Your task to perform on an android device: change your default location settings in chrome Image 0: 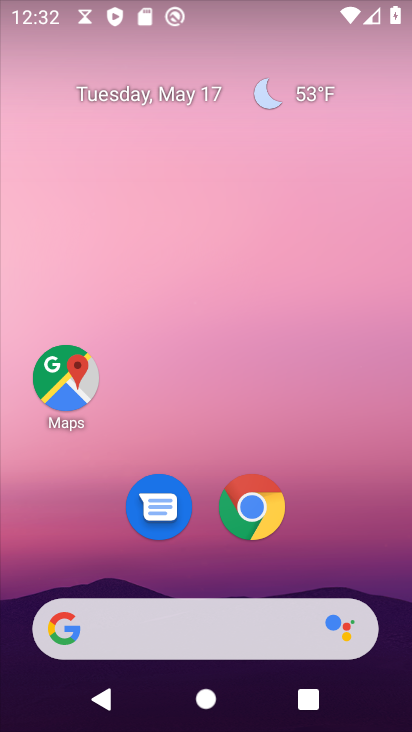
Step 0: click (258, 509)
Your task to perform on an android device: change your default location settings in chrome Image 1: 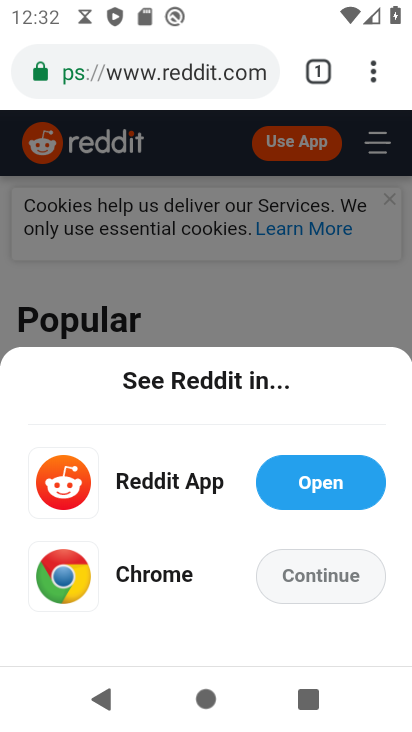
Step 1: click (366, 71)
Your task to perform on an android device: change your default location settings in chrome Image 2: 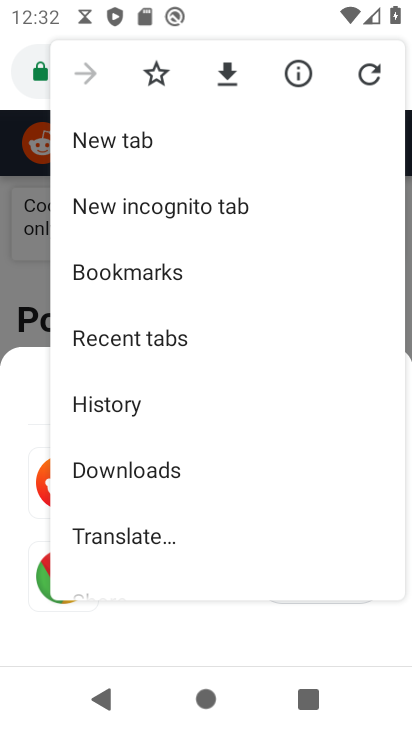
Step 2: drag from (221, 529) to (217, 335)
Your task to perform on an android device: change your default location settings in chrome Image 3: 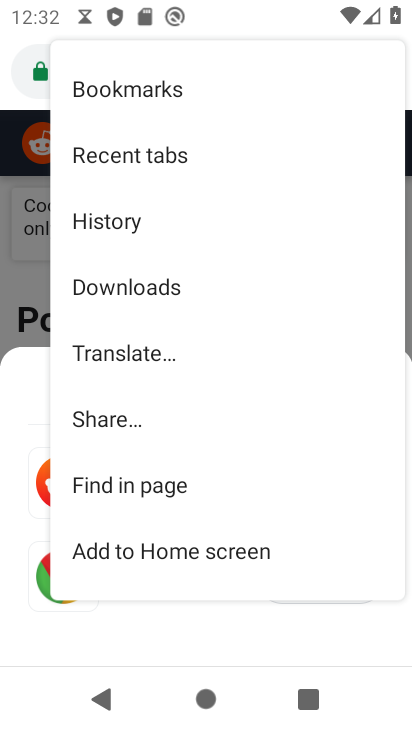
Step 3: drag from (188, 522) to (188, 325)
Your task to perform on an android device: change your default location settings in chrome Image 4: 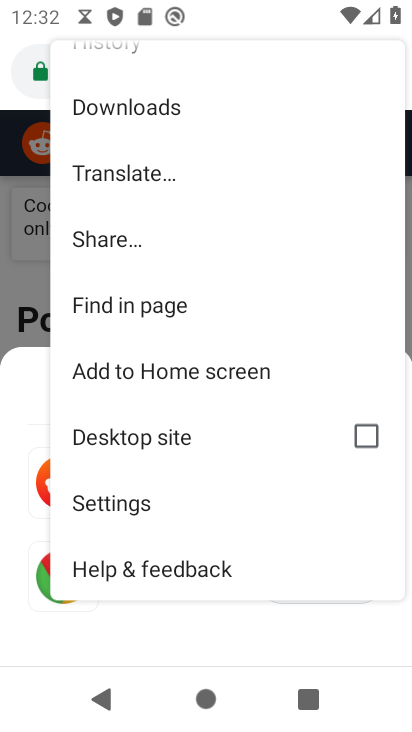
Step 4: click (186, 501)
Your task to perform on an android device: change your default location settings in chrome Image 5: 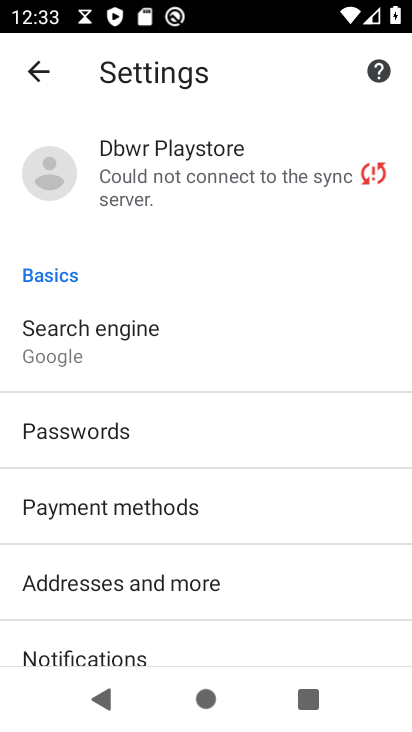
Step 5: drag from (187, 612) to (210, 395)
Your task to perform on an android device: change your default location settings in chrome Image 6: 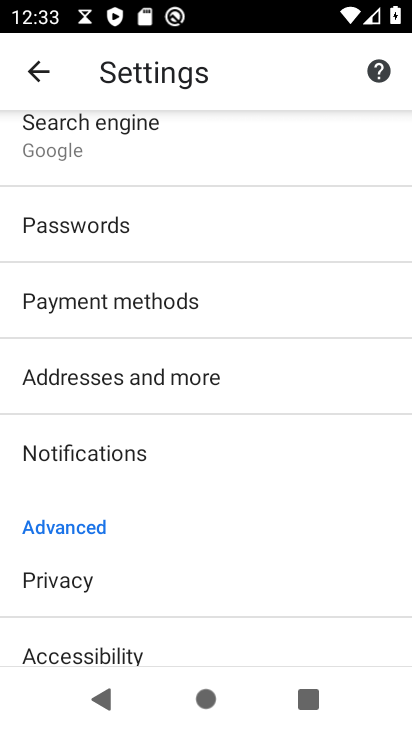
Step 6: drag from (164, 640) to (169, 480)
Your task to perform on an android device: change your default location settings in chrome Image 7: 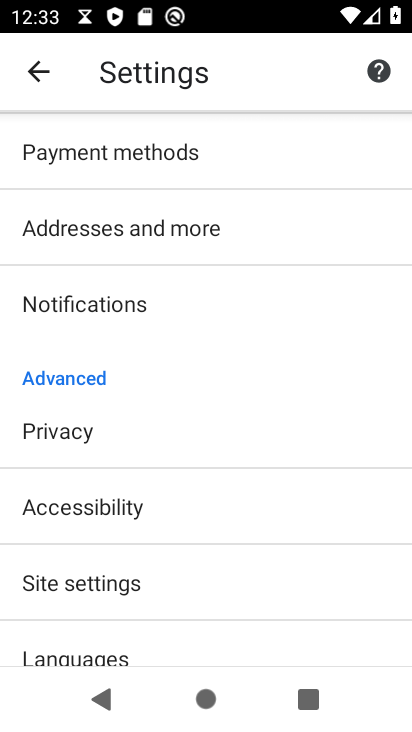
Step 7: drag from (220, 612) to (191, 493)
Your task to perform on an android device: change your default location settings in chrome Image 8: 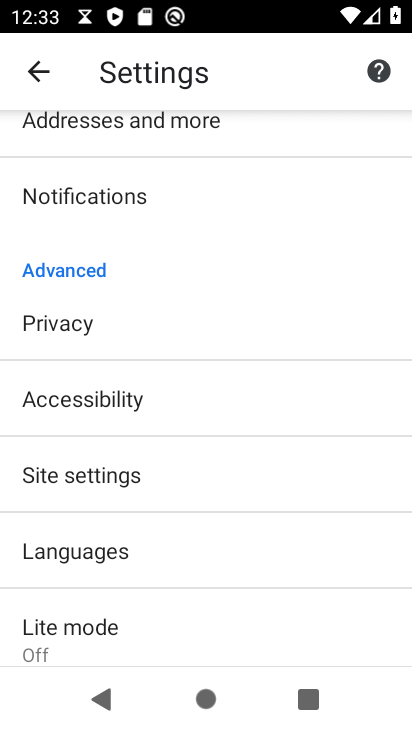
Step 8: click (186, 461)
Your task to perform on an android device: change your default location settings in chrome Image 9: 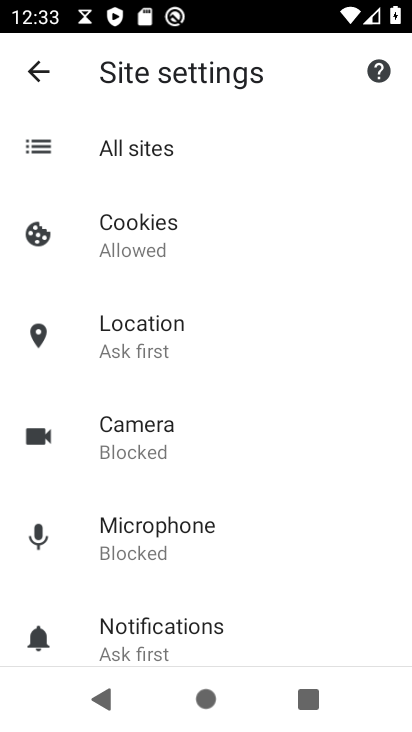
Step 9: click (165, 351)
Your task to perform on an android device: change your default location settings in chrome Image 10: 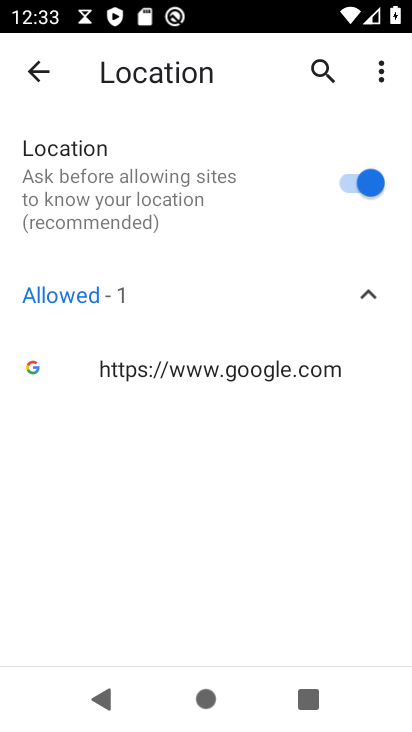
Step 10: click (394, 196)
Your task to perform on an android device: change your default location settings in chrome Image 11: 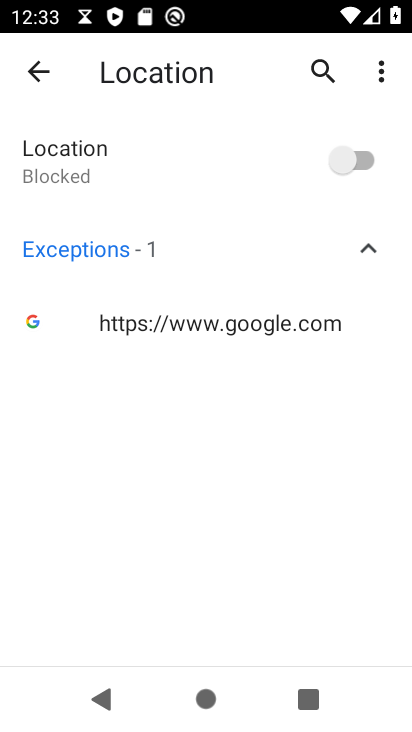
Step 11: task complete